Your task to perform on an android device: open chrome privacy settings Image 0: 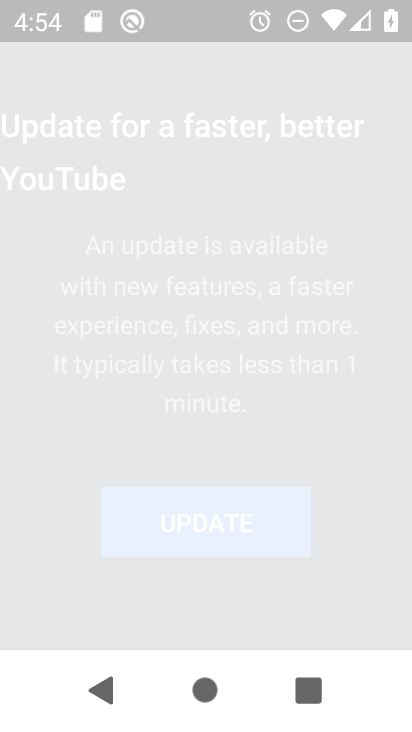
Step 0: drag from (235, 523) to (175, 67)
Your task to perform on an android device: open chrome privacy settings Image 1: 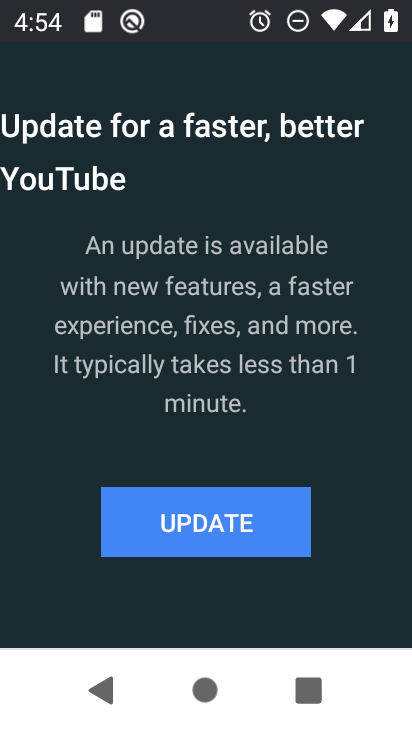
Step 1: press back button
Your task to perform on an android device: open chrome privacy settings Image 2: 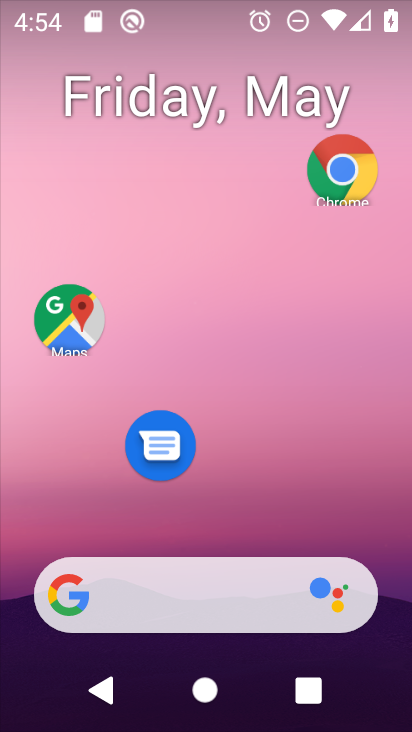
Step 2: click (339, 183)
Your task to perform on an android device: open chrome privacy settings Image 3: 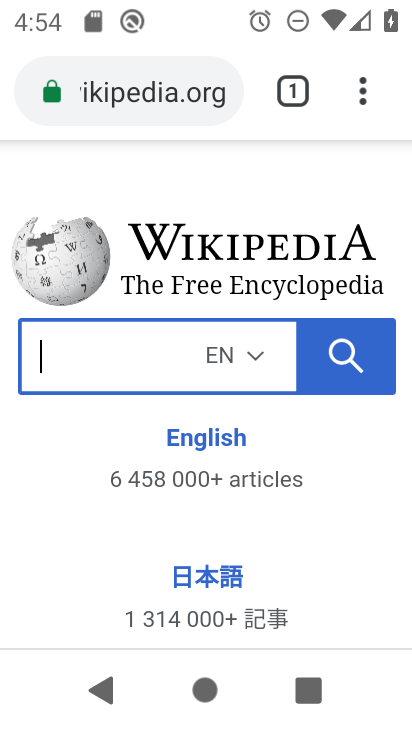
Step 3: click (359, 101)
Your task to perform on an android device: open chrome privacy settings Image 4: 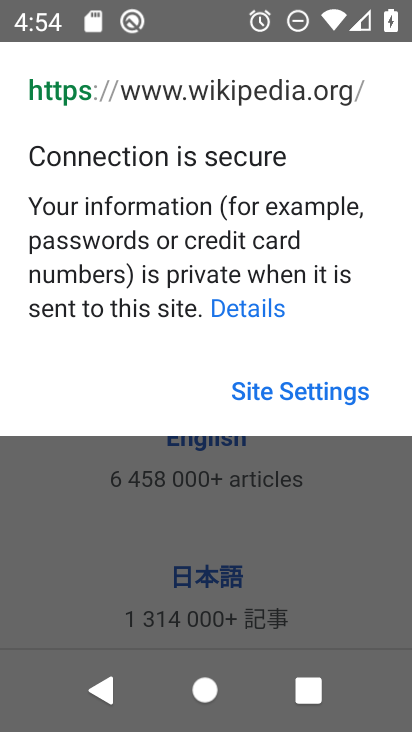
Step 4: click (289, 503)
Your task to perform on an android device: open chrome privacy settings Image 5: 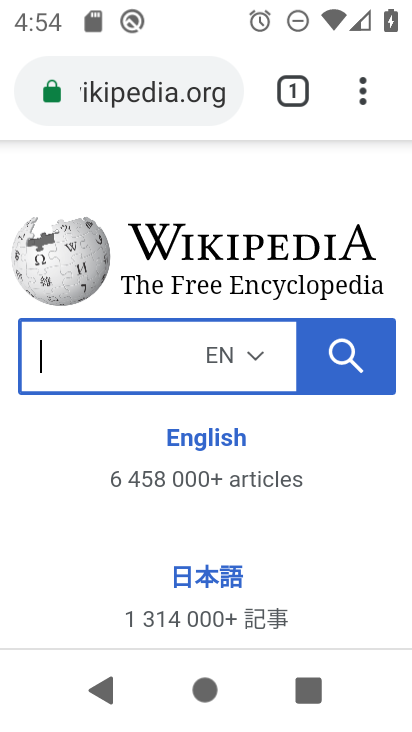
Step 5: click (363, 89)
Your task to perform on an android device: open chrome privacy settings Image 6: 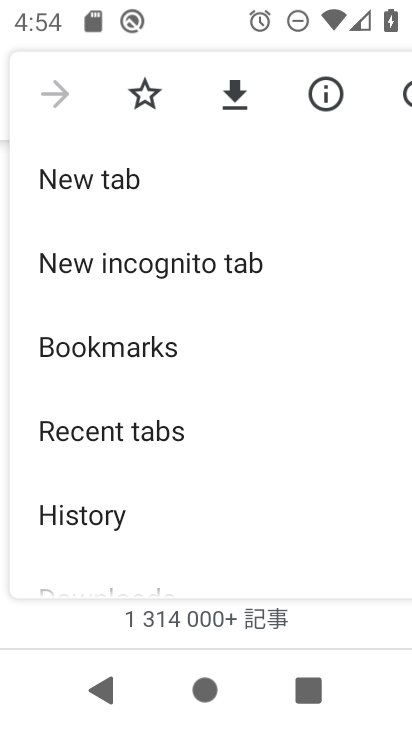
Step 6: drag from (151, 497) to (154, 147)
Your task to perform on an android device: open chrome privacy settings Image 7: 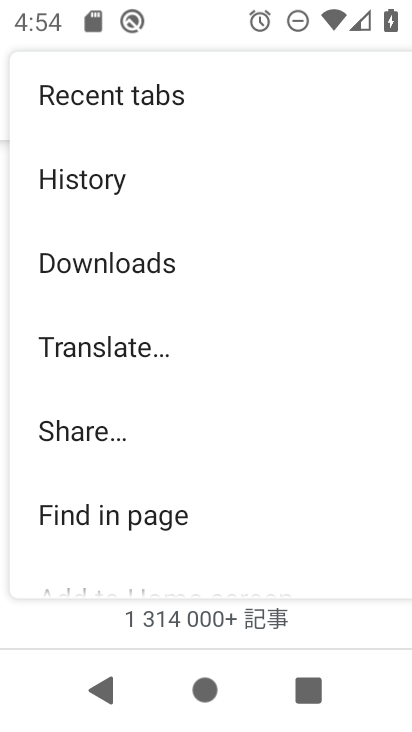
Step 7: drag from (106, 463) to (132, 124)
Your task to perform on an android device: open chrome privacy settings Image 8: 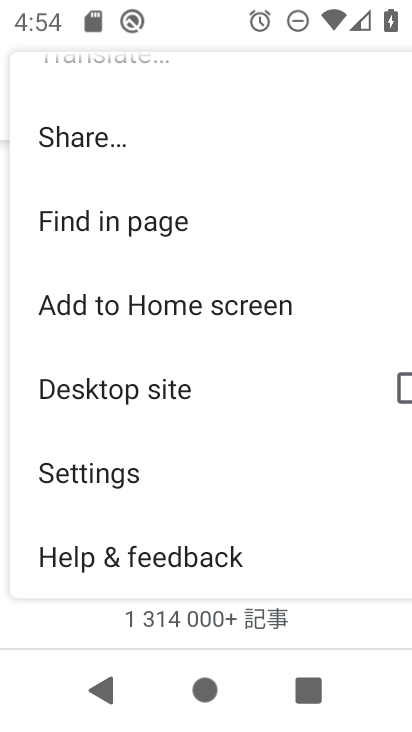
Step 8: click (109, 470)
Your task to perform on an android device: open chrome privacy settings Image 9: 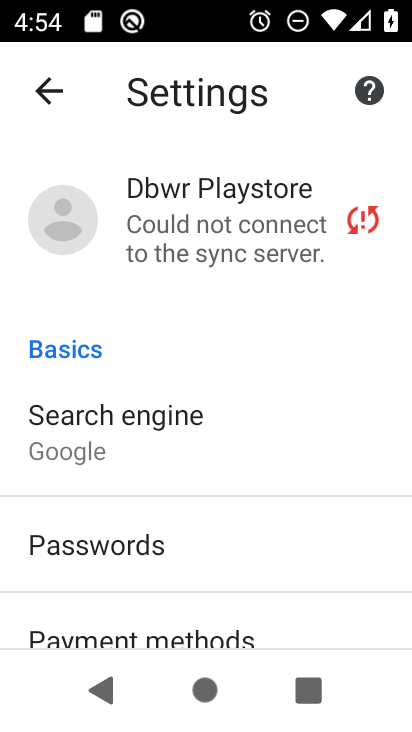
Step 9: drag from (165, 513) to (195, 268)
Your task to perform on an android device: open chrome privacy settings Image 10: 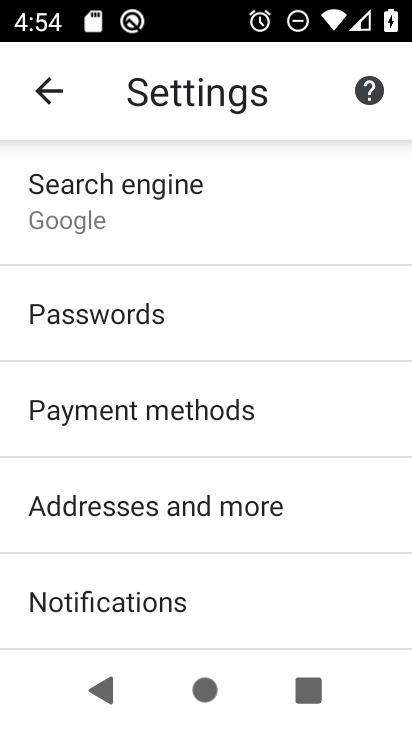
Step 10: drag from (226, 529) to (262, 106)
Your task to perform on an android device: open chrome privacy settings Image 11: 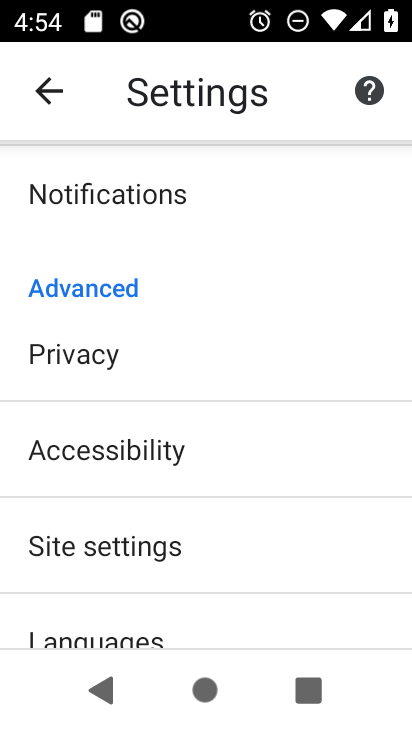
Step 11: drag from (133, 588) to (123, 354)
Your task to perform on an android device: open chrome privacy settings Image 12: 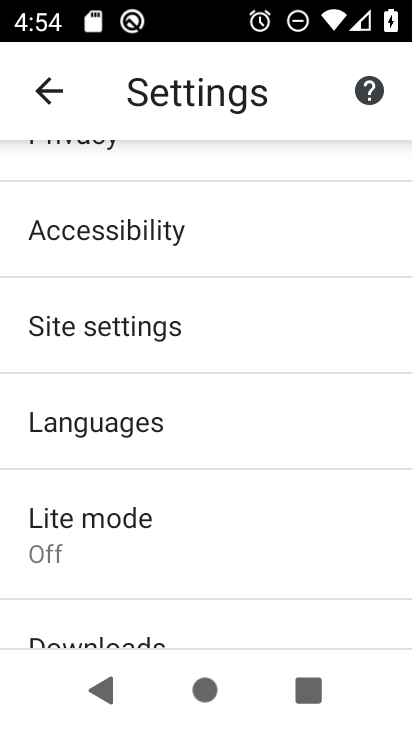
Step 12: drag from (123, 273) to (136, 412)
Your task to perform on an android device: open chrome privacy settings Image 13: 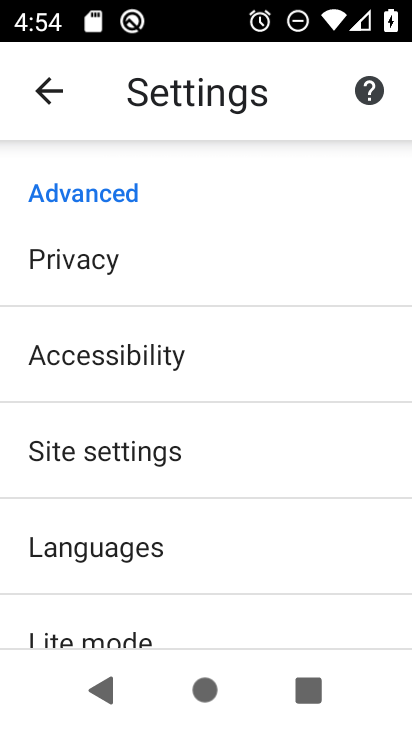
Step 13: click (70, 253)
Your task to perform on an android device: open chrome privacy settings Image 14: 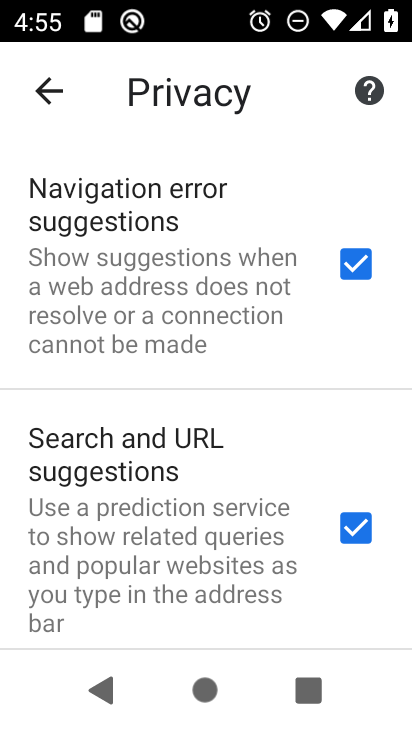
Step 14: task complete